Your task to perform on an android device: show emergency info Image 0: 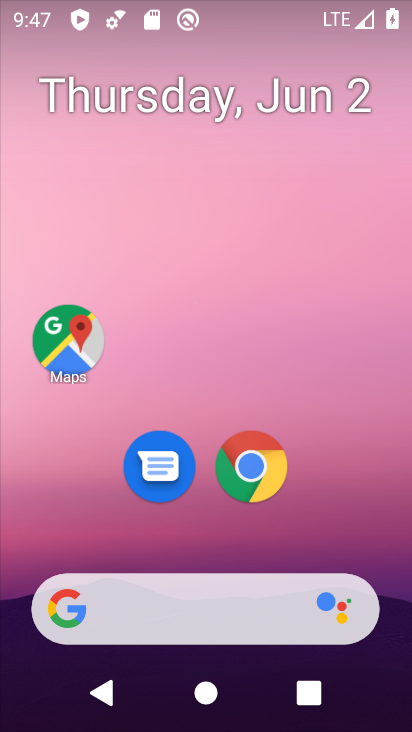
Step 0: drag from (138, 387) to (186, 169)
Your task to perform on an android device: show emergency info Image 1: 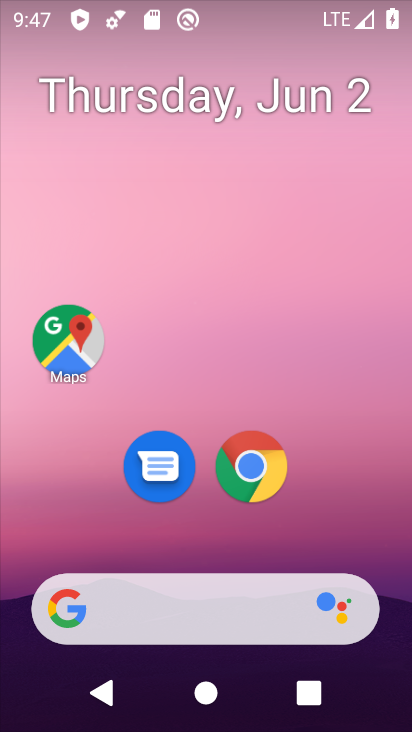
Step 1: drag from (94, 554) to (219, 5)
Your task to perform on an android device: show emergency info Image 2: 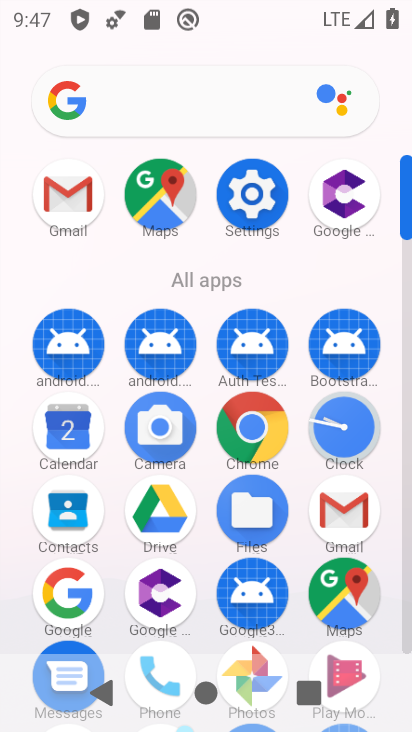
Step 2: drag from (219, 567) to (274, 259)
Your task to perform on an android device: show emergency info Image 3: 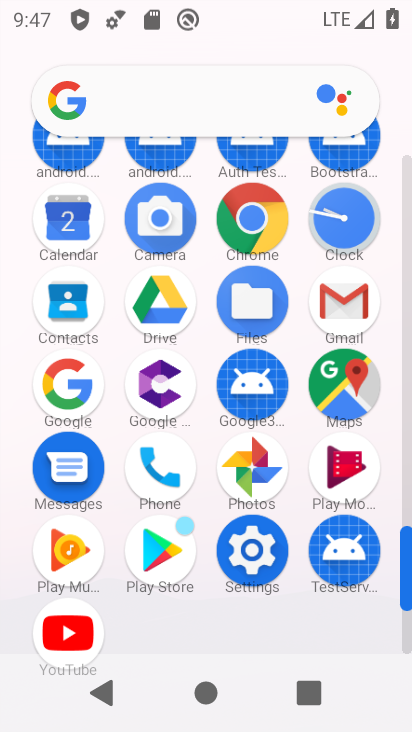
Step 3: click (246, 555)
Your task to perform on an android device: show emergency info Image 4: 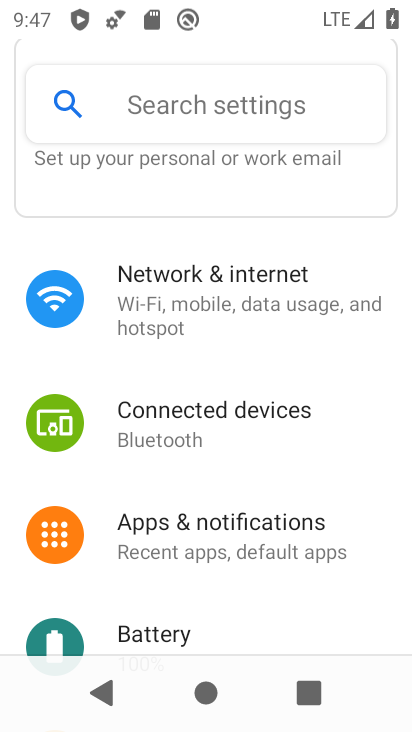
Step 4: drag from (151, 565) to (317, 122)
Your task to perform on an android device: show emergency info Image 5: 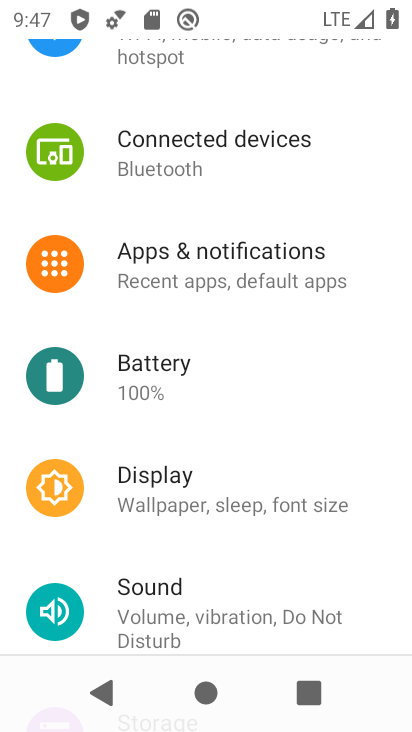
Step 5: drag from (183, 516) to (346, 5)
Your task to perform on an android device: show emergency info Image 6: 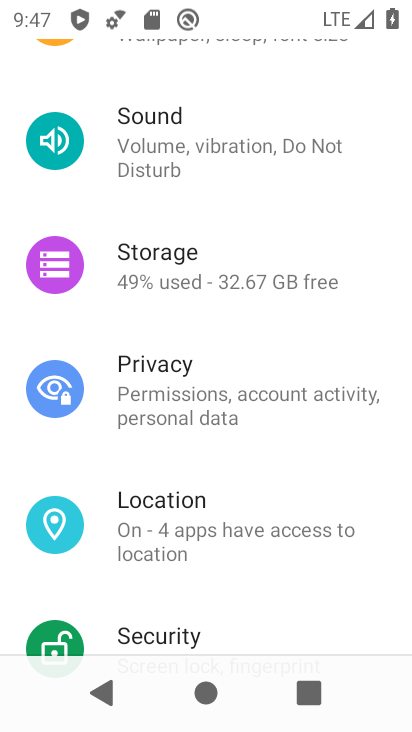
Step 6: drag from (256, 539) to (362, 179)
Your task to perform on an android device: show emergency info Image 7: 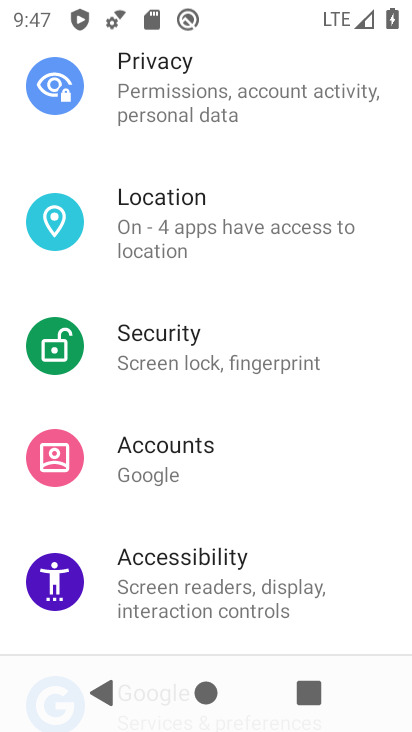
Step 7: drag from (205, 564) to (329, 74)
Your task to perform on an android device: show emergency info Image 8: 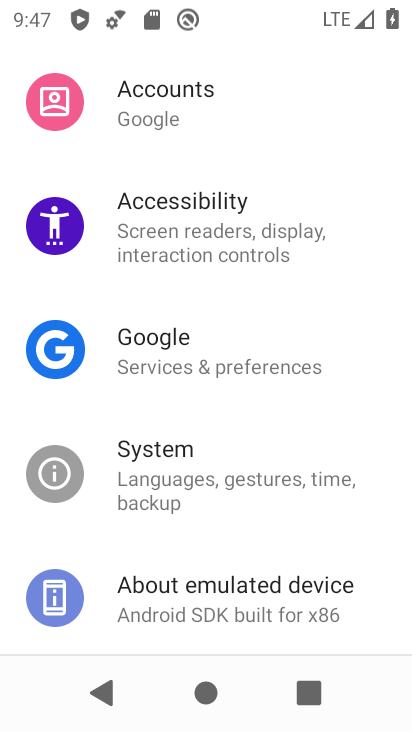
Step 8: click (244, 622)
Your task to perform on an android device: show emergency info Image 9: 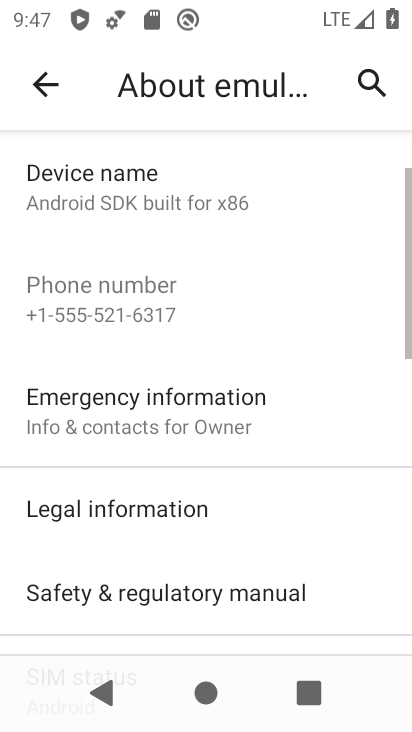
Step 9: click (311, 406)
Your task to perform on an android device: show emergency info Image 10: 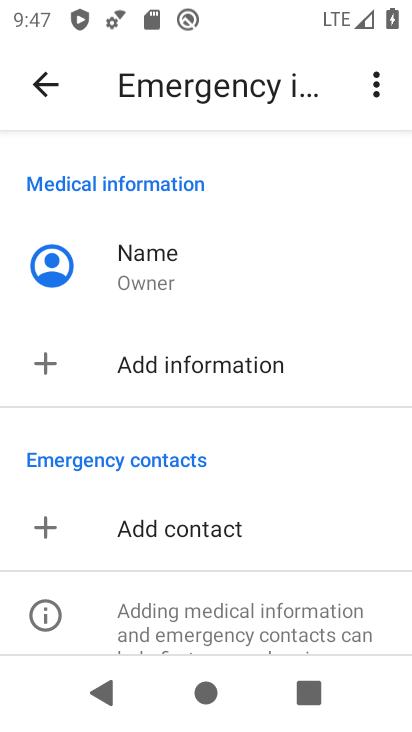
Step 10: task complete